Your task to perform on an android device: change notifications settings Image 0: 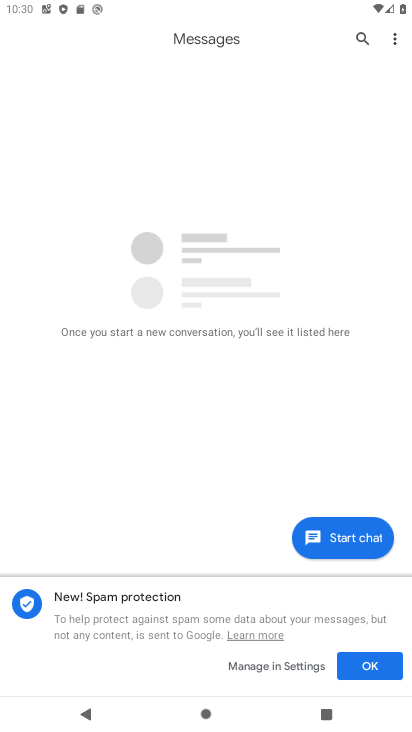
Step 0: press back button
Your task to perform on an android device: change notifications settings Image 1: 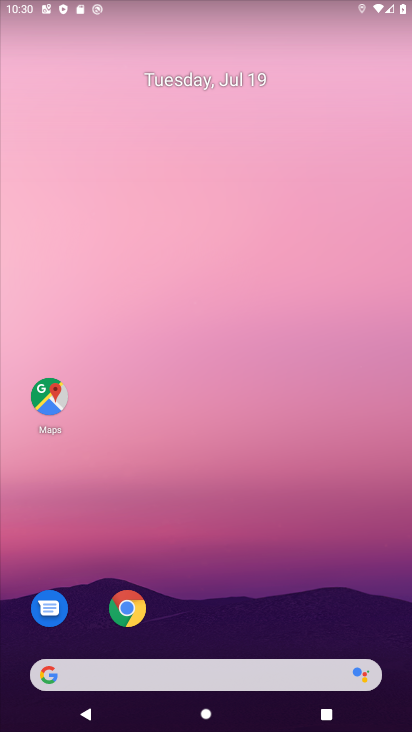
Step 1: drag from (175, 634) to (85, 1)
Your task to perform on an android device: change notifications settings Image 2: 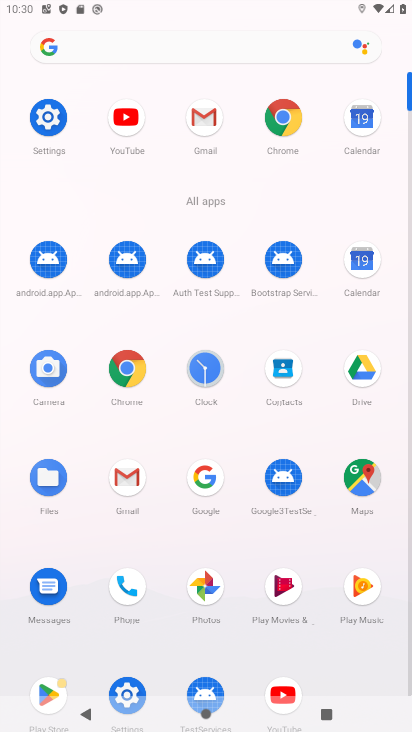
Step 2: click (61, 121)
Your task to perform on an android device: change notifications settings Image 3: 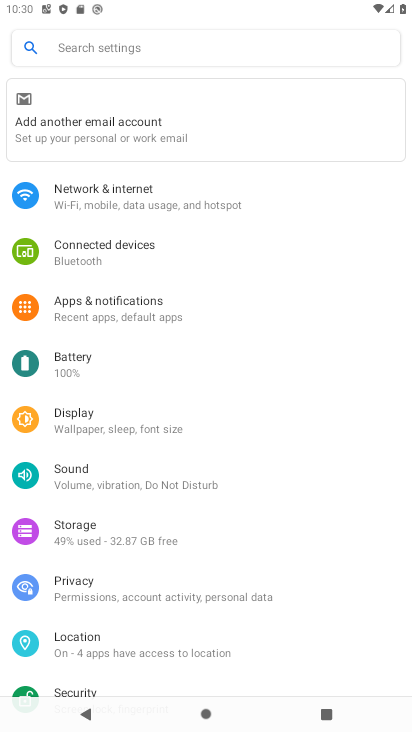
Step 3: click (88, 298)
Your task to perform on an android device: change notifications settings Image 4: 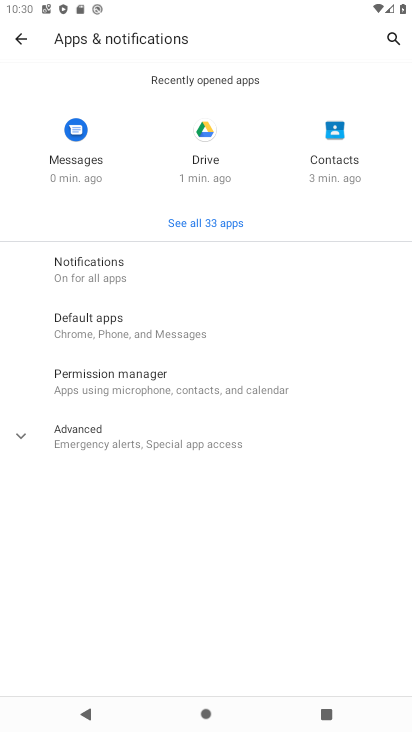
Step 4: click (96, 266)
Your task to perform on an android device: change notifications settings Image 5: 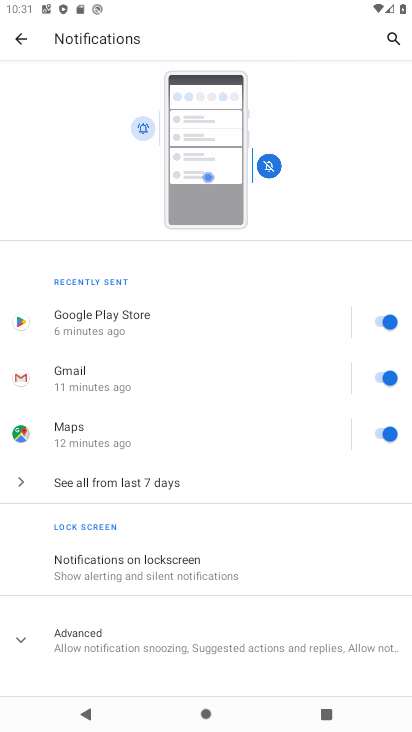
Step 5: task complete